Your task to perform on an android device: Check the weather Image 0: 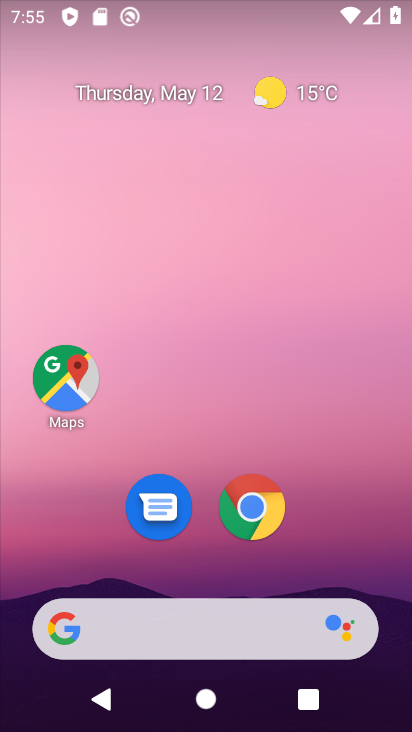
Step 0: click (131, 619)
Your task to perform on an android device: Check the weather Image 1: 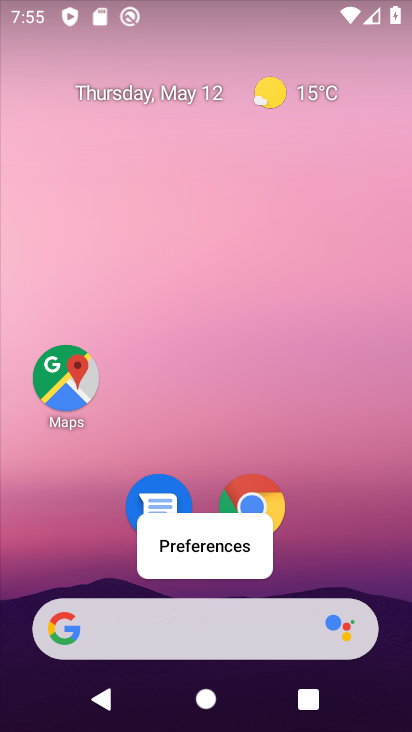
Step 1: click (200, 625)
Your task to perform on an android device: Check the weather Image 2: 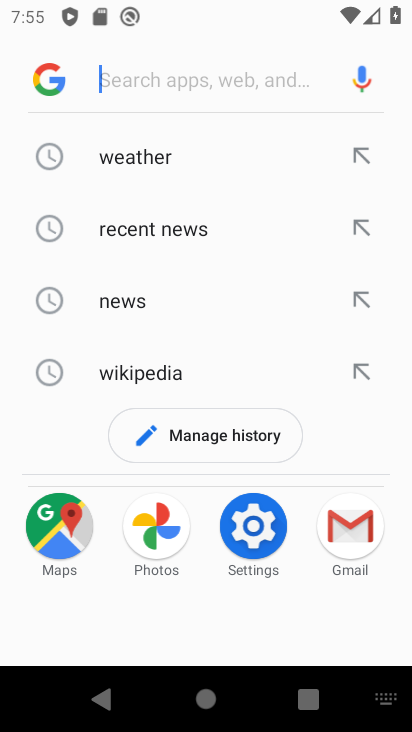
Step 2: click (204, 80)
Your task to perform on an android device: Check the weather Image 3: 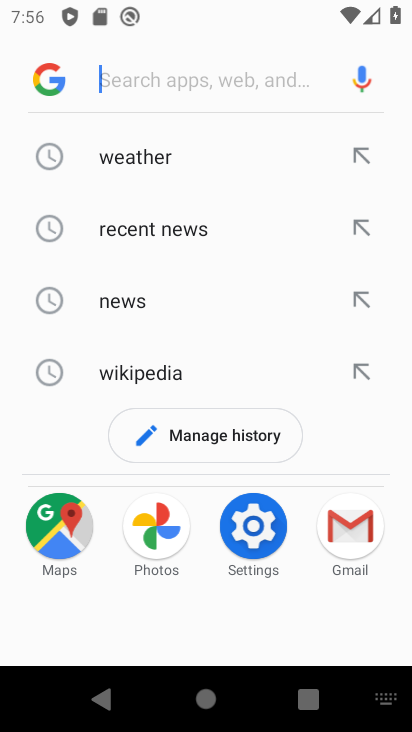
Step 3: type "weather"
Your task to perform on an android device: Check the weather Image 4: 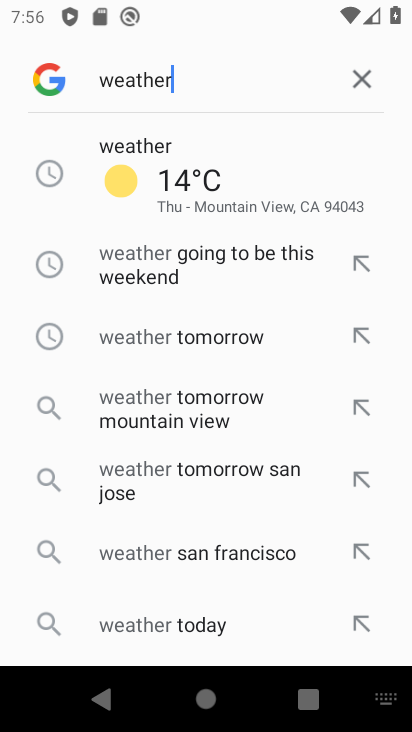
Step 4: click (199, 173)
Your task to perform on an android device: Check the weather Image 5: 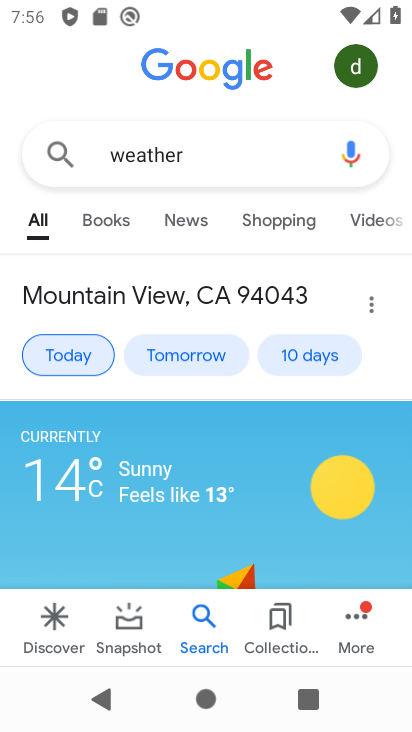
Step 5: task complete